Your task to perform on an android device: turn vacation reply on in the gmail app Image 0: 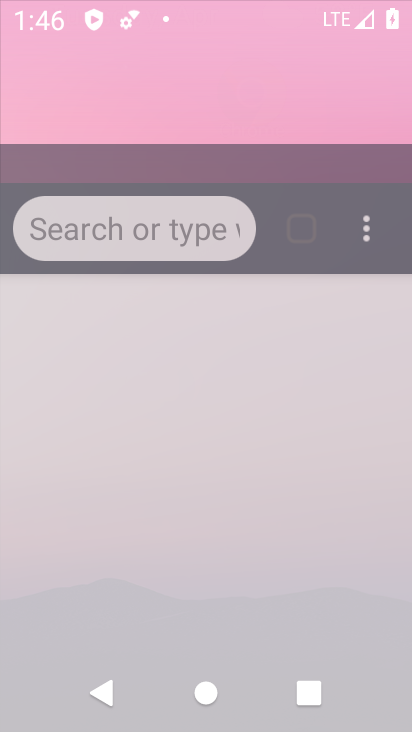
Step 0: drag from (318, 540) to (320, 7)
Your task to perform on an android device: turn vacation reply on in the gmail app Image 1: 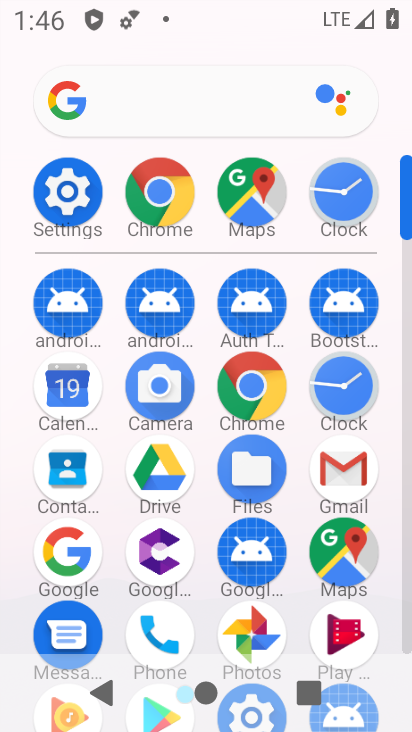
Step 1: click (336, 478)
Your task to perform on an android device: turn vacation reply on in the gmail app Image 2: 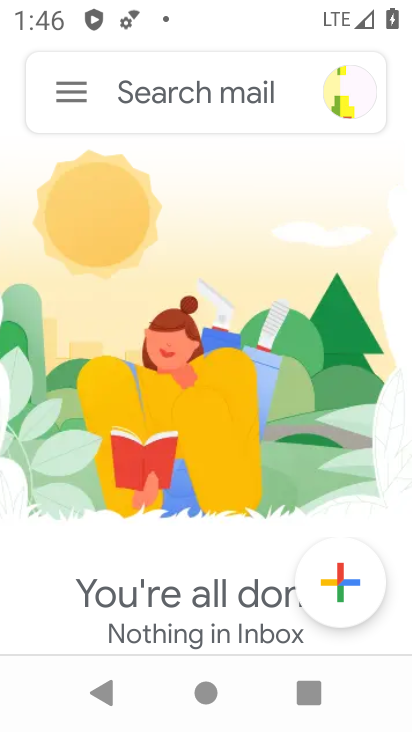
Step 2: click (74, 95)
Your task to perform on an android device: turn vacation reply on in the gmail app Image 3: 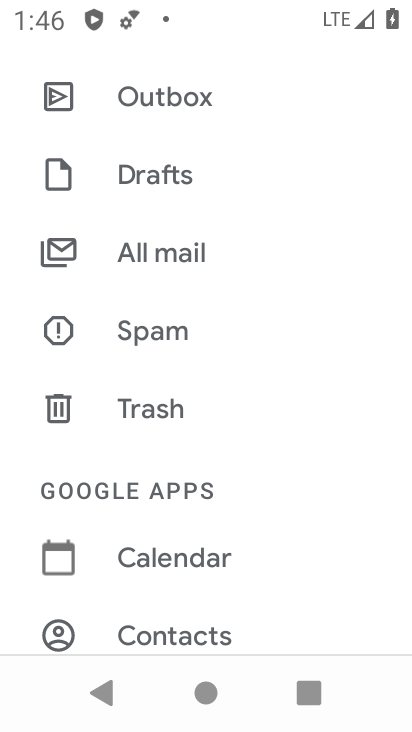
Step 3: drag from (171, 545) to (184, 216)
Your task to perform on an android device: turn vacation reply on in the gmail app Image 4: 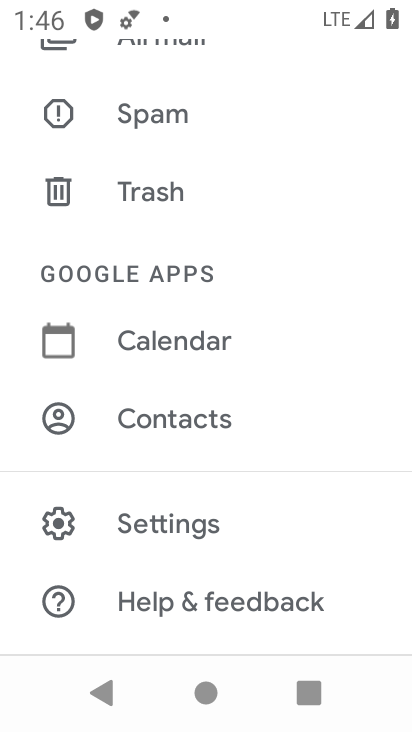
Step 4: click (206, 528)
Your task to perform on an android device: turn vacation reply on in the gmail app Image 5: 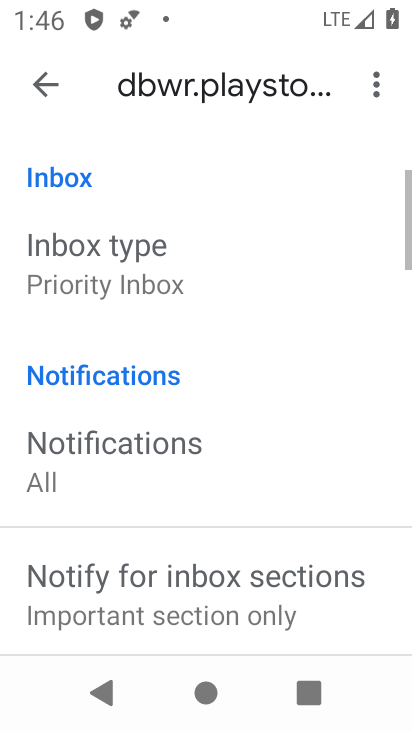
Step 5: drag from (271, 655) to (216, 182)
Your task to perform on an android device: turn vacation reply on in the gmail app Image 6: 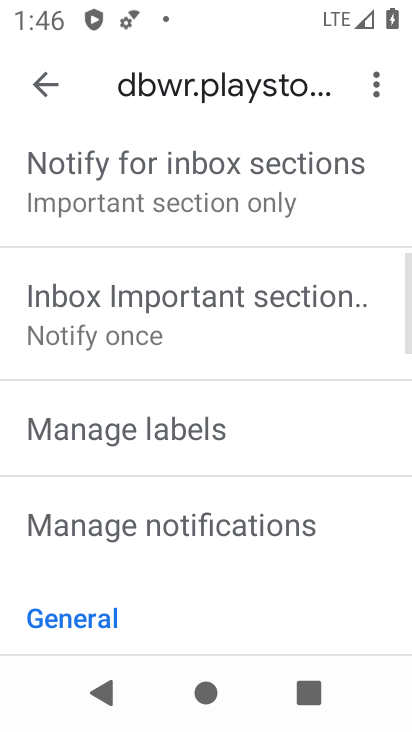
Step 6: drag from (292, 621) to (278, 281)
Your task to perform on an android device: turn vacation reply on in the gmail app Image 7: 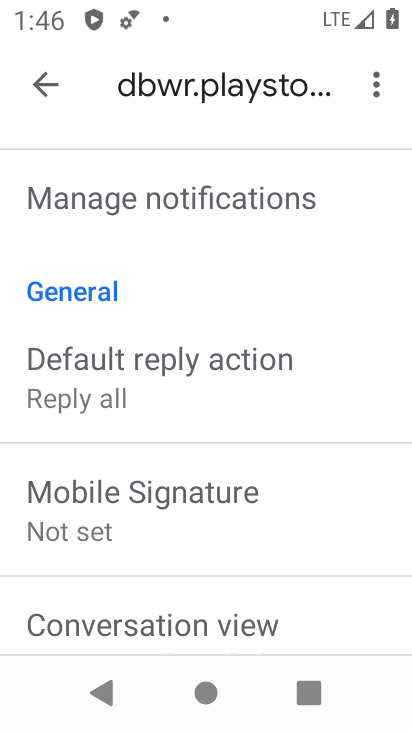
Step 7: drag from (317, 586) to (318, 321)
Your task to perform on an android device: turn vacation reply on in the gmail app Image 8: 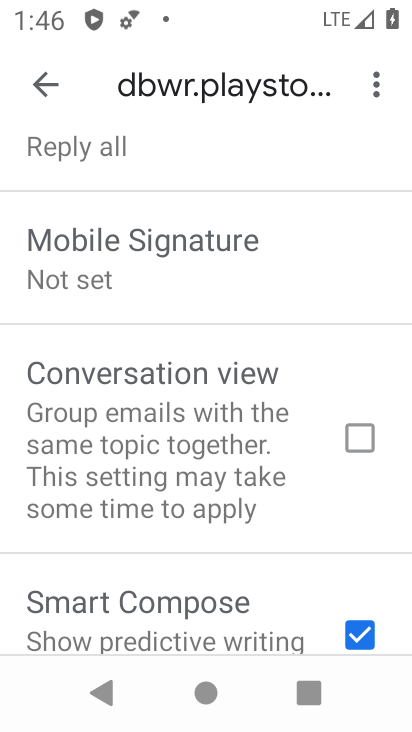
Step 8: drag from (318, 580) to (359, 330)
Your task to perform on an android device: turn vacation reply on in the gmail app Image 9: 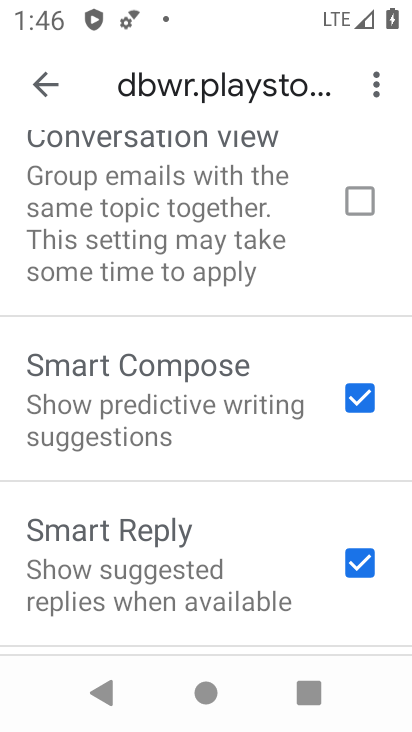
Step 9: drag from (306, 574) to (336, 405)
Your task to perform on an android device: turn vacation reply on in the gmail app Image 10: 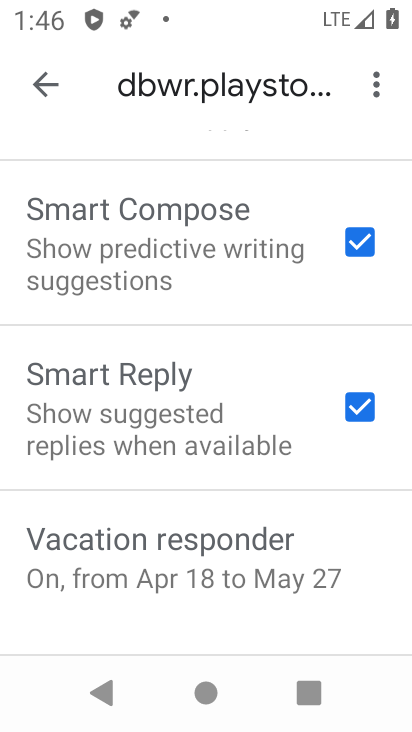
Step 10: click (295, 552)
Your task to perform on an android device: turn vacation reply on in the gmail app Image 11: 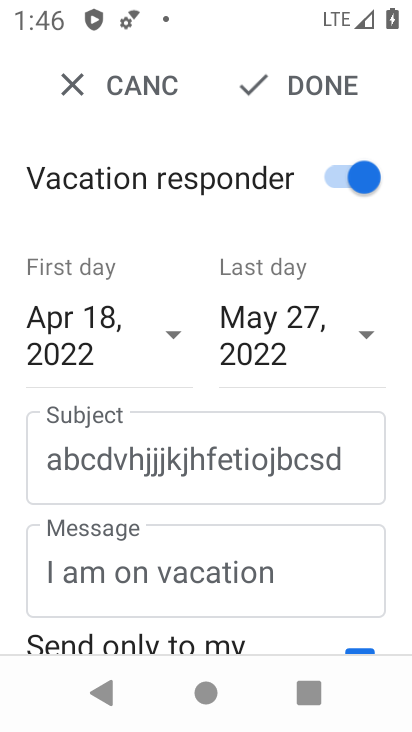
Step 11: click (308, 81)
Your task to perform on an android device: turn vacation reply on in the gmail app Image 12: 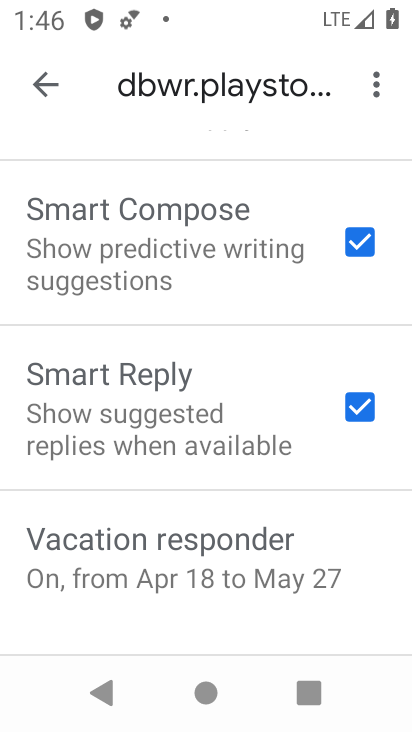
Step 12: task complete